Your task to perform on an android device: Go to location settings Image 0: 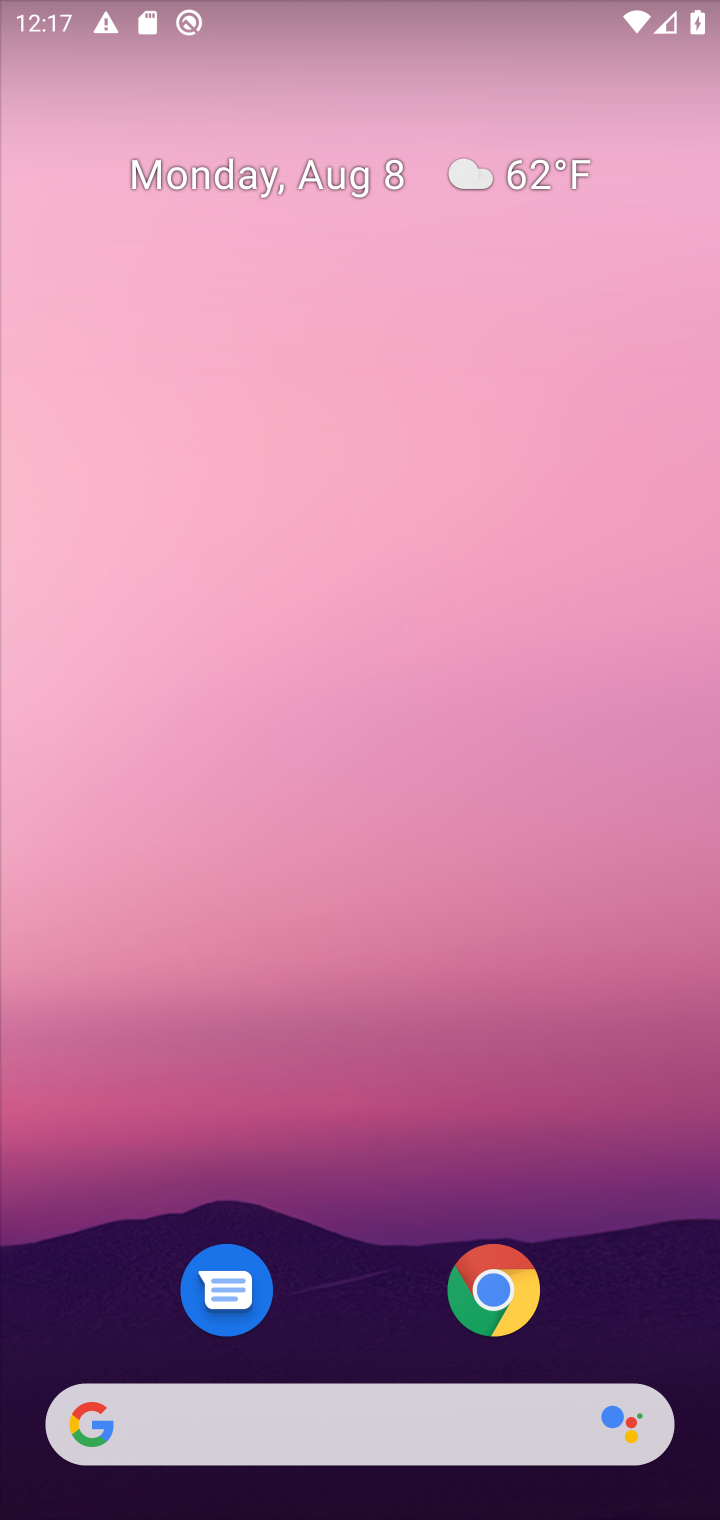
Step 0: drag from (365, 1215) to (372, 634)
Your task to perform on an android device: Go to location settings Image 1: 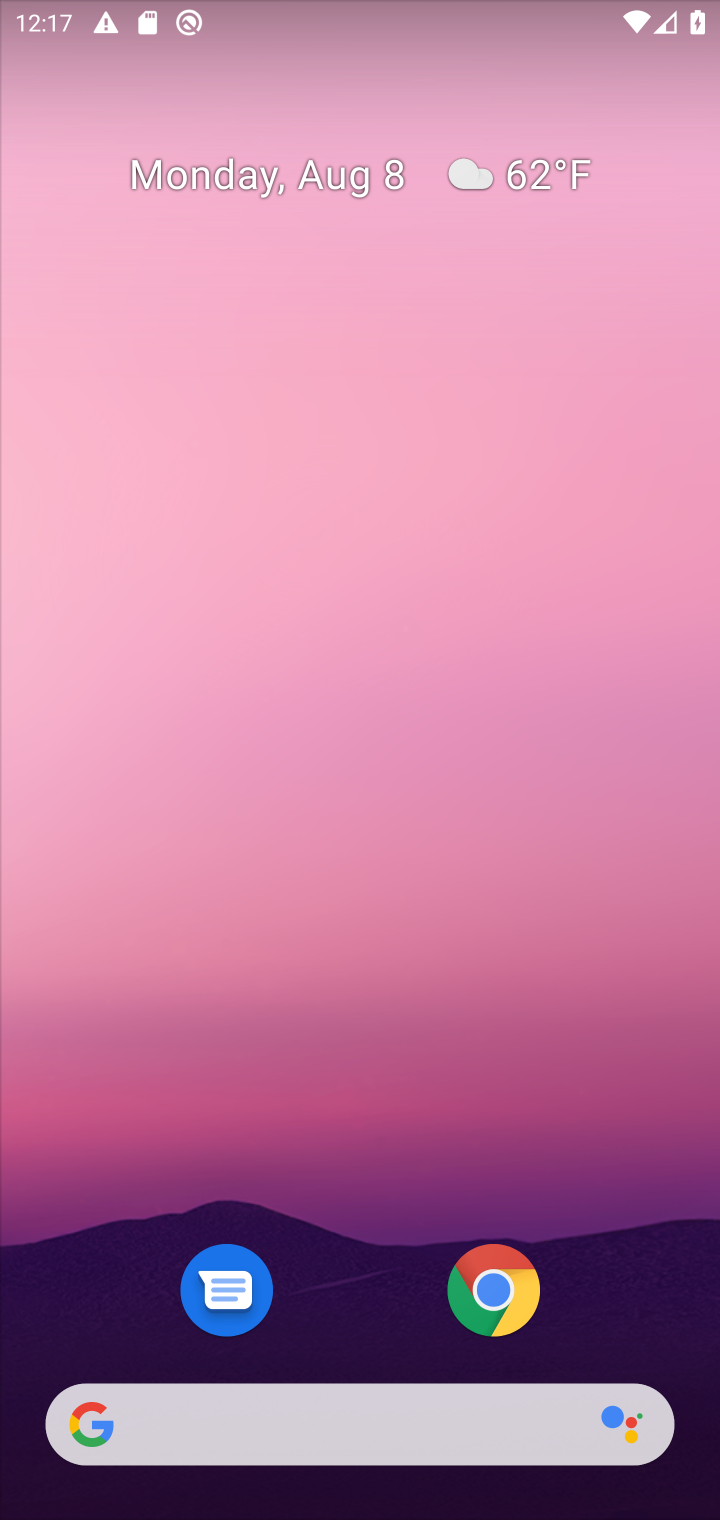
Step 1: drag from (358, 1324) to (314, 46)
Your task to perform on an android device: Go to location settings Image 2: 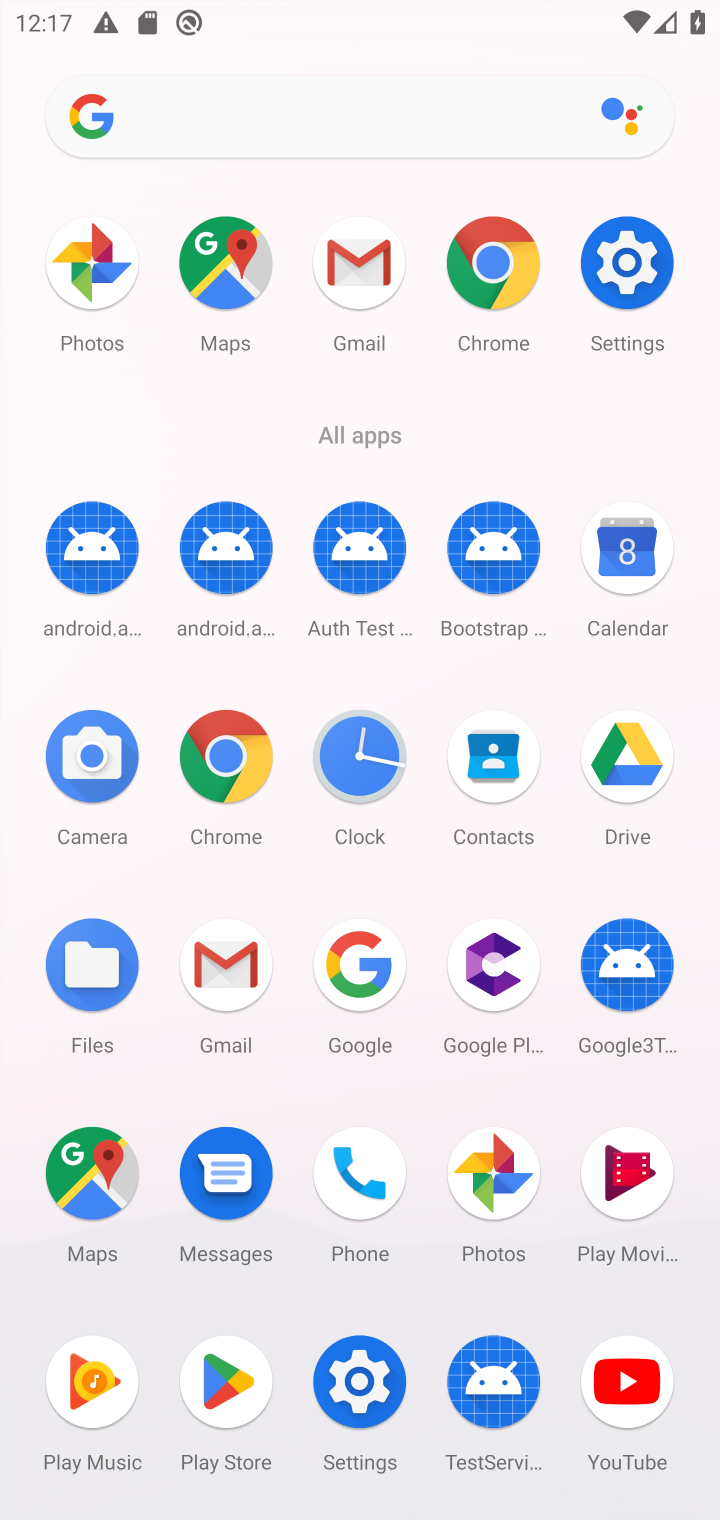
Step 2: click (350, 1389)
Your task to perform on an android device: Go to location settings Image 3: 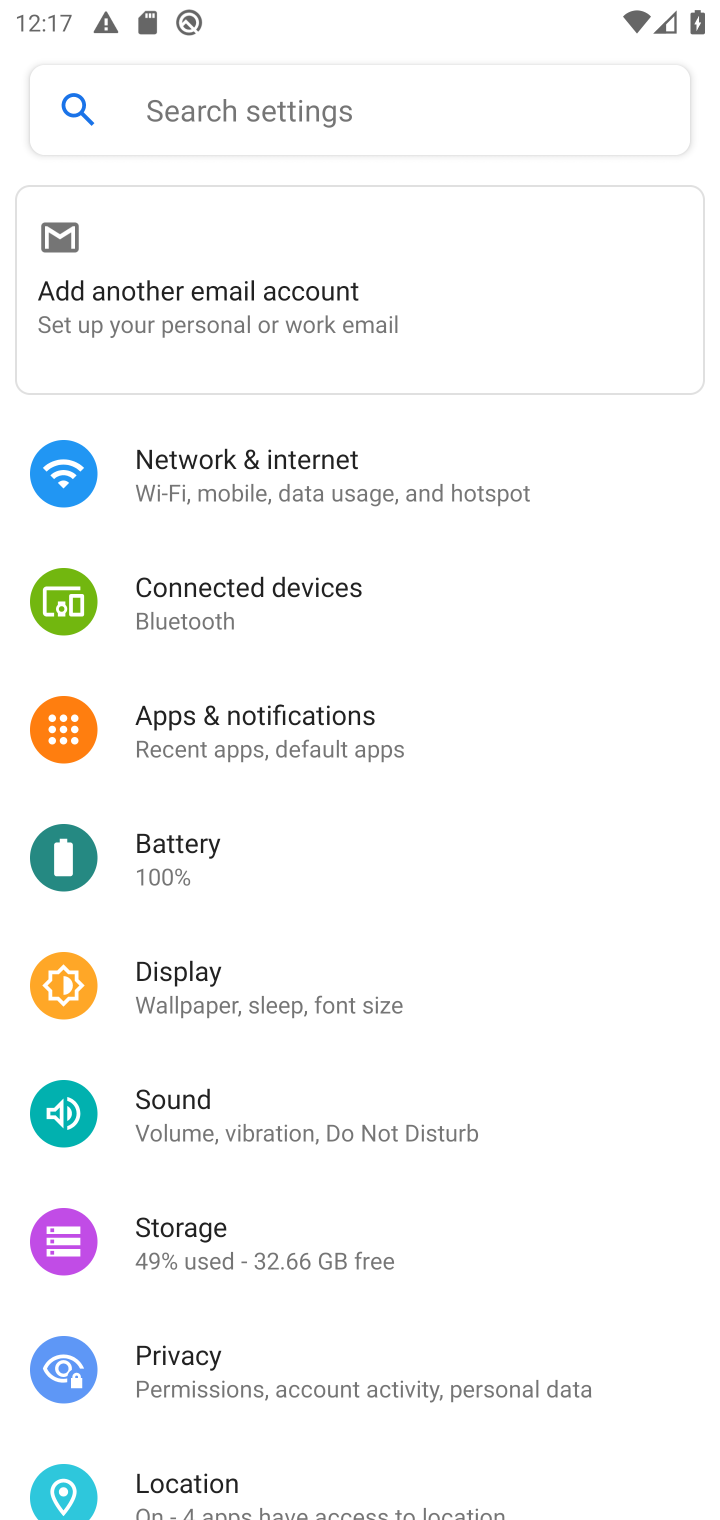
Step 3: drag from (229, 1460) to (271, 1137)
Your task to perform on an android device: Go to location settings Image 4: 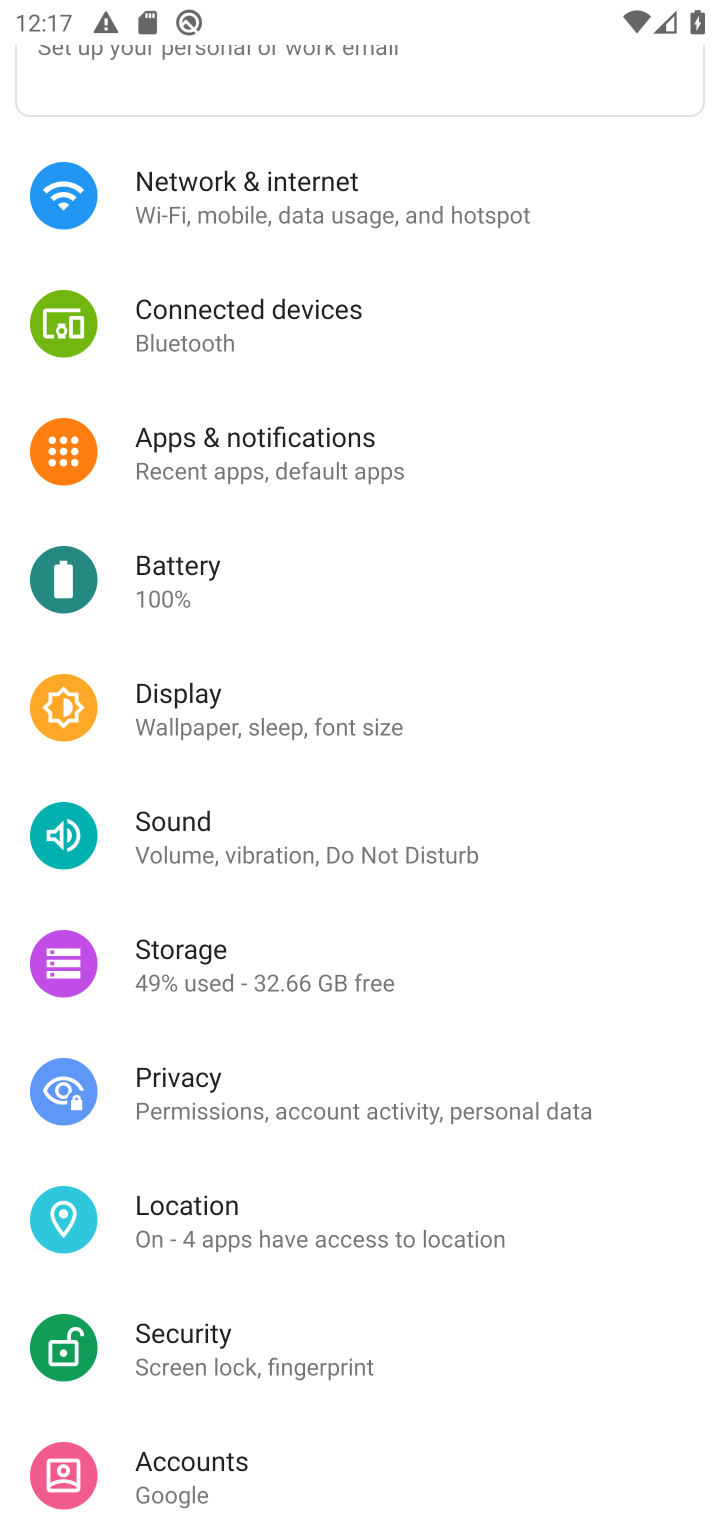
Step 4: click (226, 1260)
Your task to perform on an android device: Go to location settings Image 5: 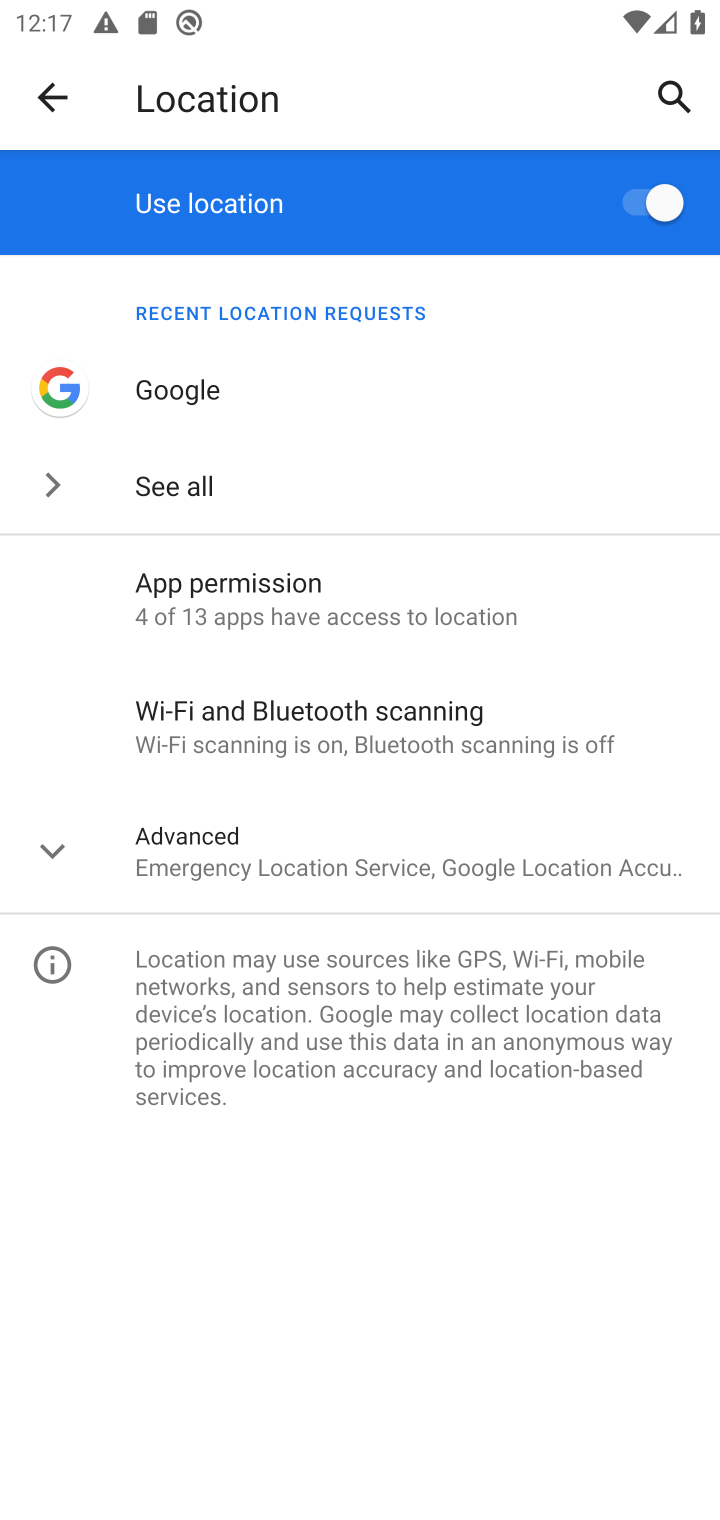
Step 5: task complete